Your task to perform on an android device: check the backup settings in the google photos Image 0: 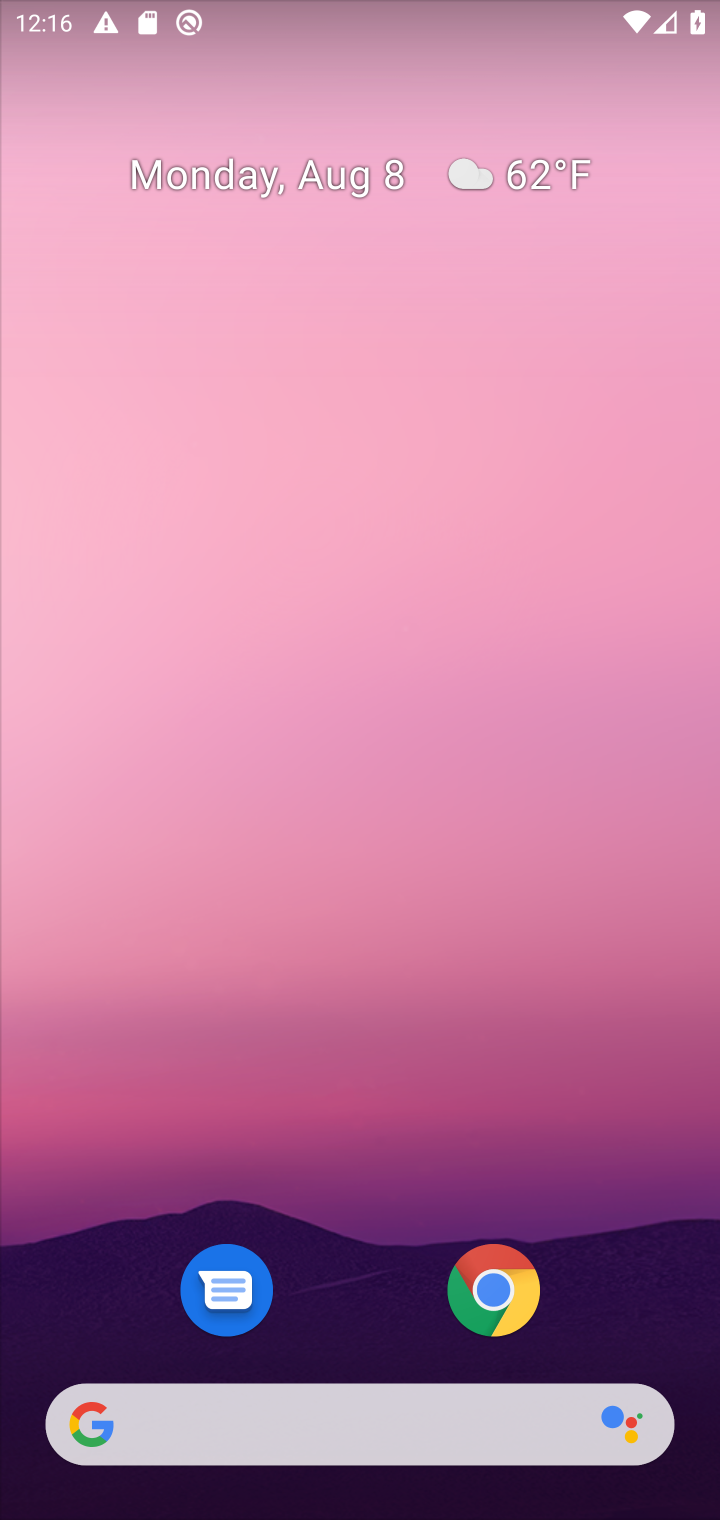
Step 0: drag from (327, 1198) to (430, 427)
Your task to perform on an android device: check the backup settings in the google photos Image 1: 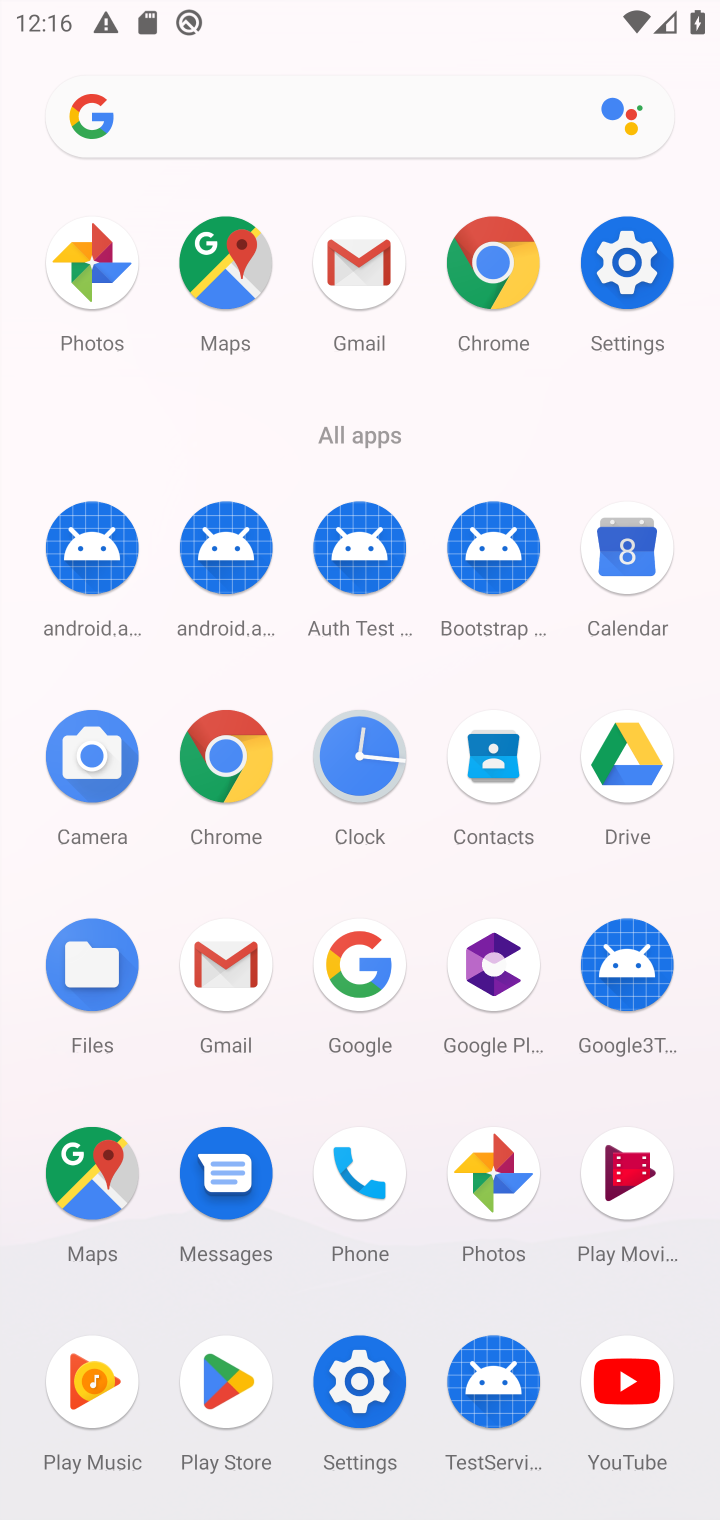
Step 1: click (455, 1211)
Your task to perform on an android device: check the backup settings in the google photos Image 2: 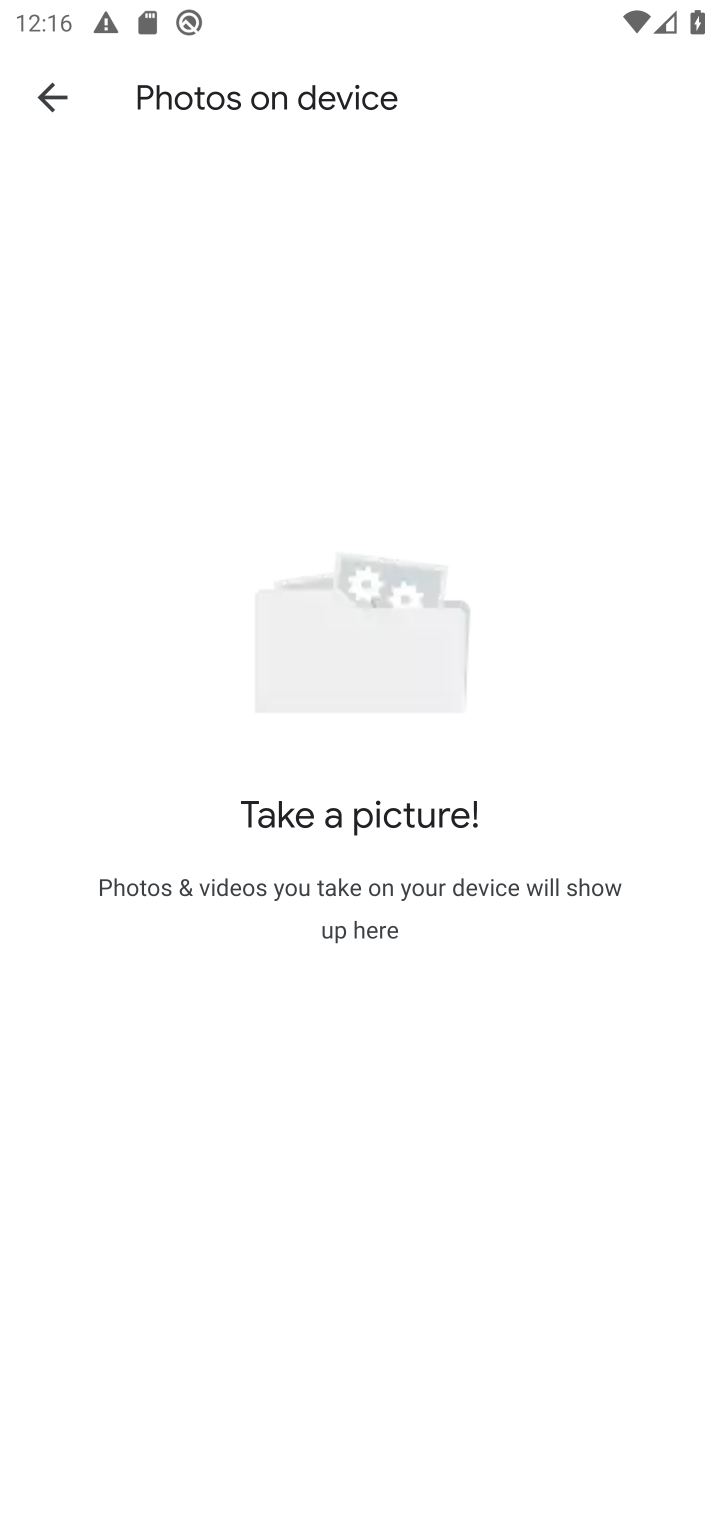
Step 2: click (36, 83)
Your task to perform on an android device: check the backup settings in the google photos Image 3: 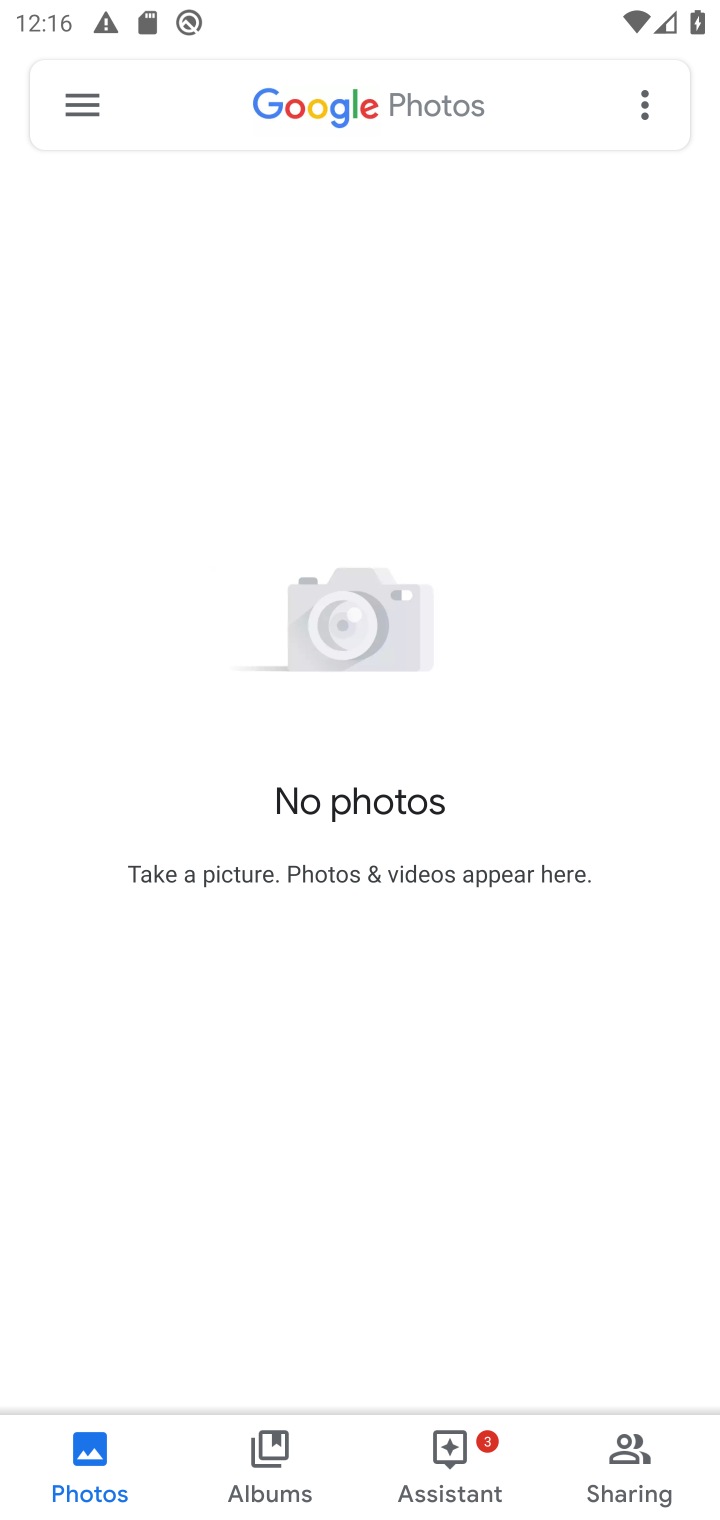
Step 3: click (60, 102)
Your task to perform on an android device: check the backup settings in the google photos Image 4: 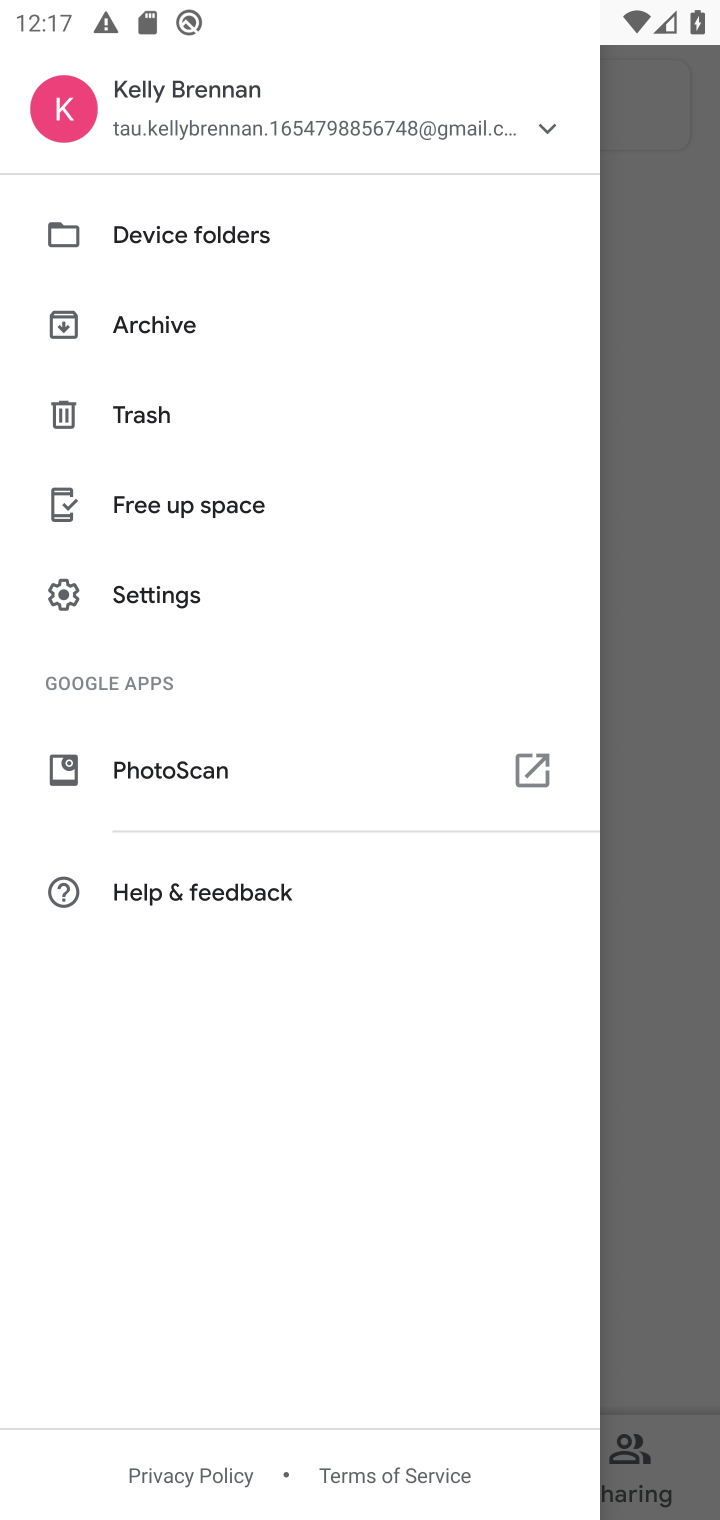
Step 4: click (180, 588)
Your task to perform on an android device: check the backup settings in the google photos Image 5: 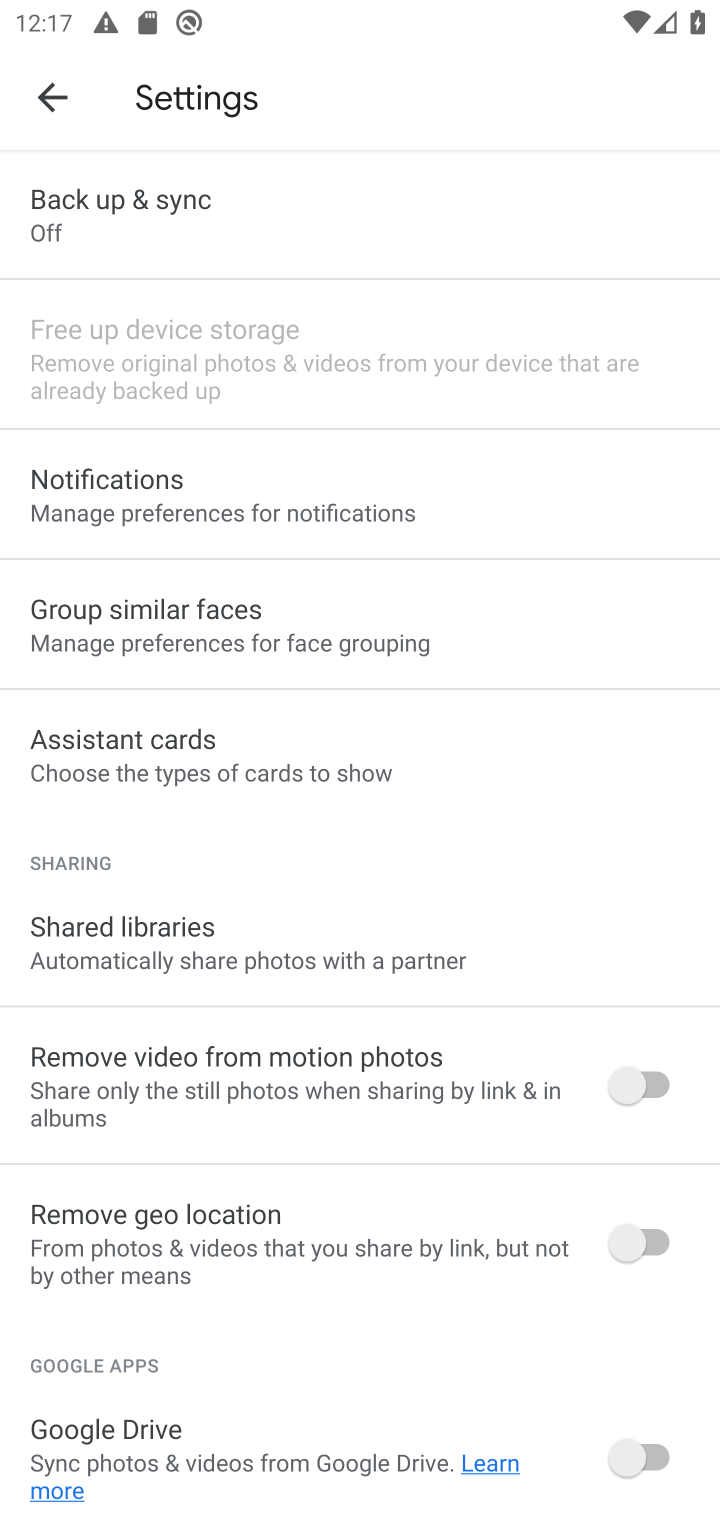
Step 5: click (155, 221)
Your task to perform on an android device: check the backup settings in the google photos Image 6: 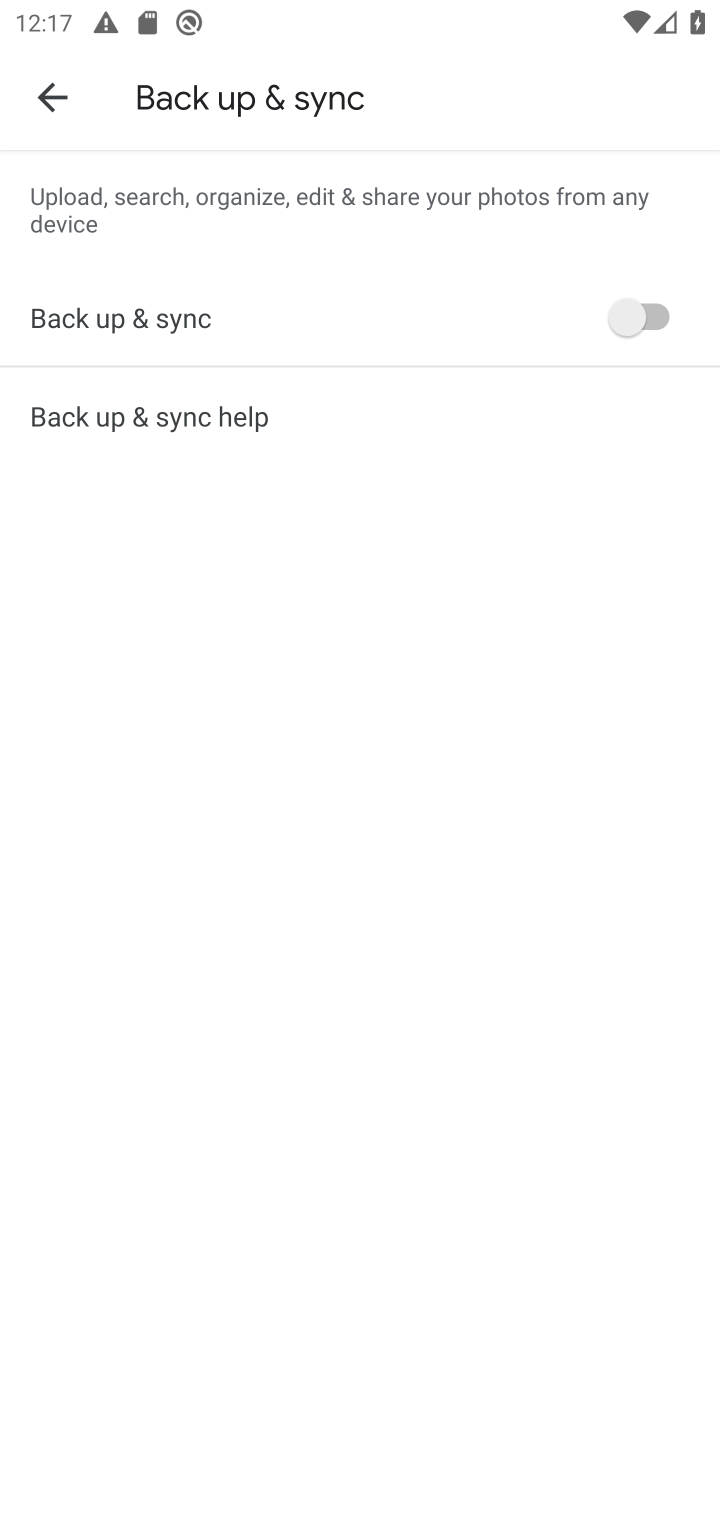
Step 6: click (691, 325)
Your task to perform on an android device: check the backup settings in the google photos Image 7: 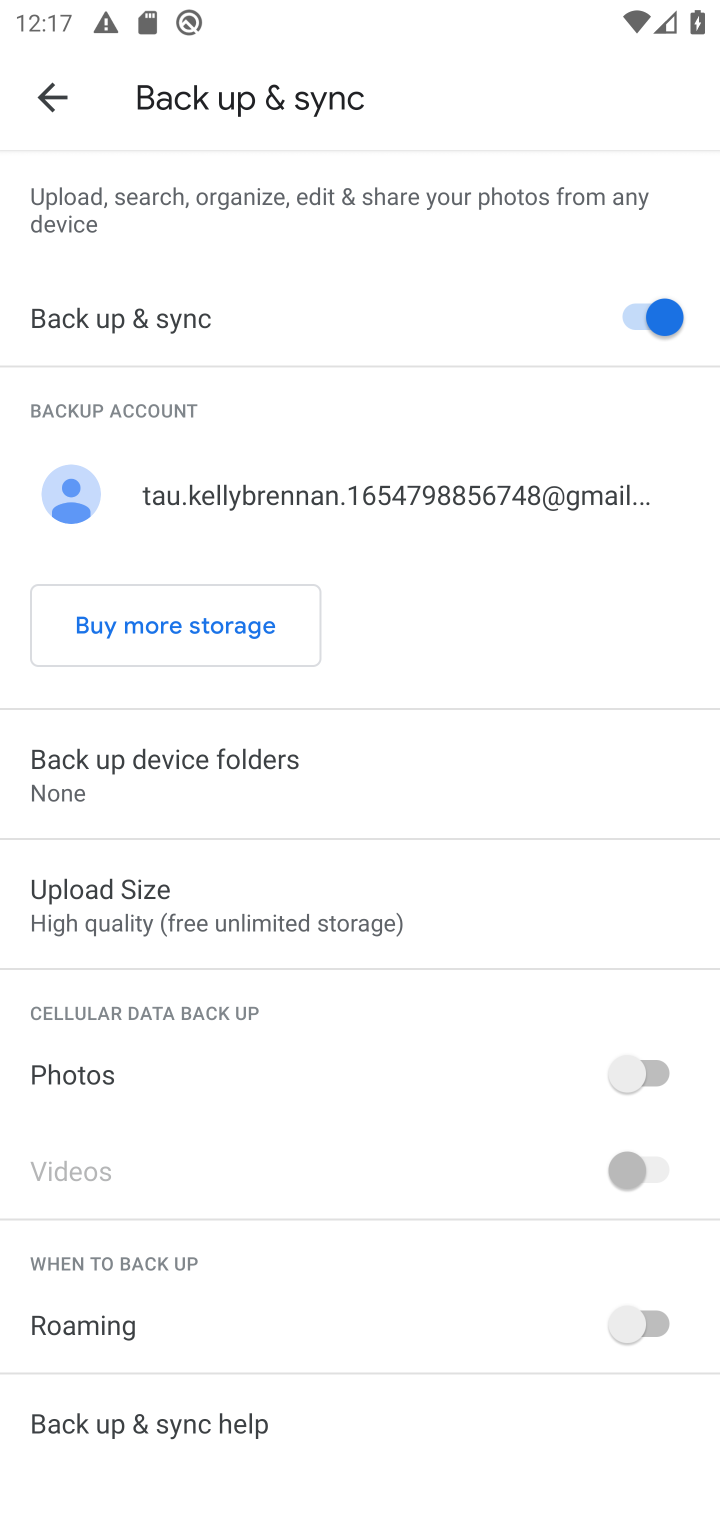
Step 7: task complete